Your task to perform on an android device: snooze an email in the gmail app Image 0: 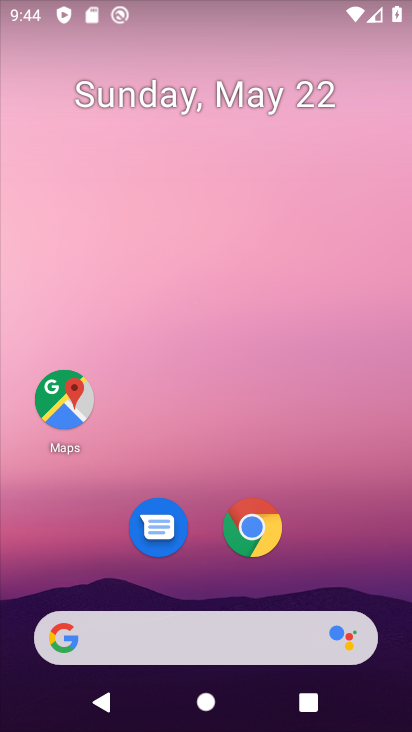
Step 0: drag from (371, 567) to (322, 144)
Your task to perform on an android device: snooze an email in the gmail app Image 1: 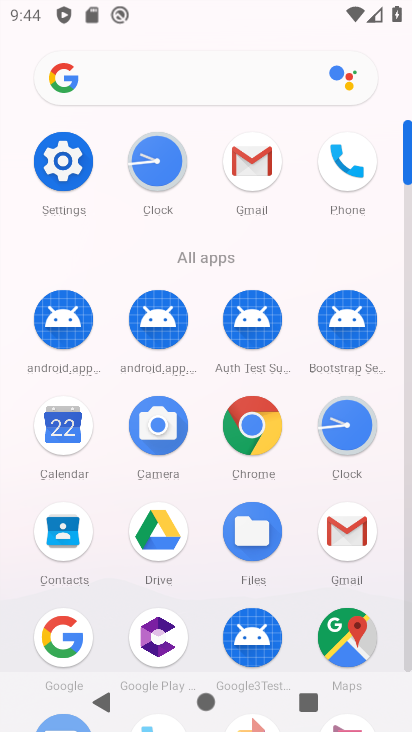
Step 1: click (252, 213)
Your task to perform on an android device: snooze an email in the gmail app Image 2: 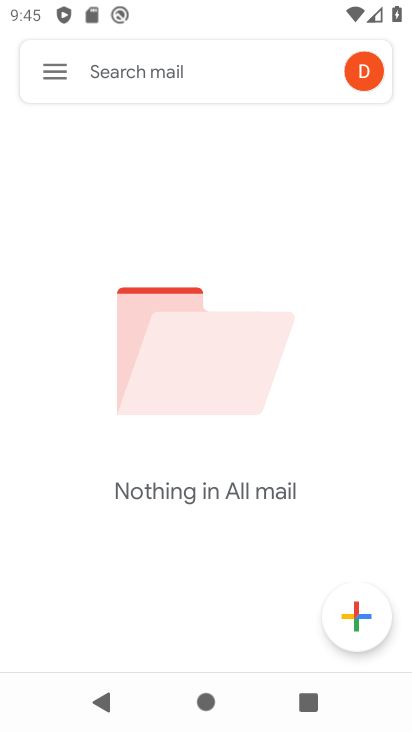
Step 2: task complete